Your task to perform on an android device: Go to Reddit.com Image 0: 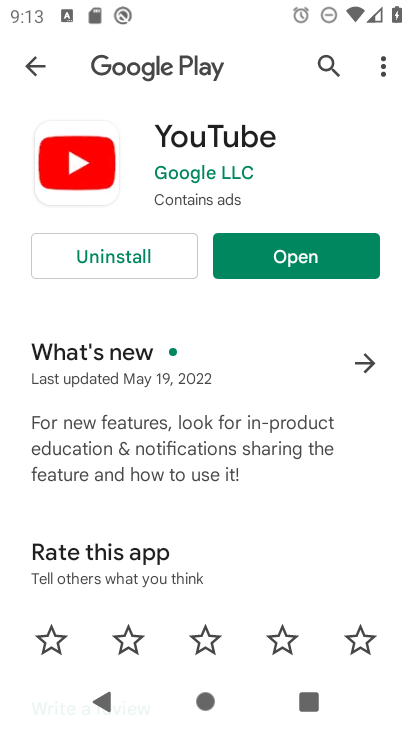
Step 0: press home button
Your task to perform on an android device: Go to Reddit.com Image 1: 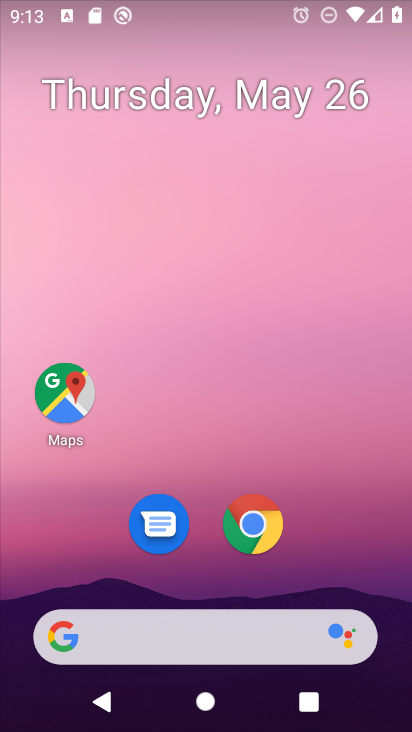
Step 1: click (247, 646)
Your task to perform on an android device: Go to Reddit.com Image 2: 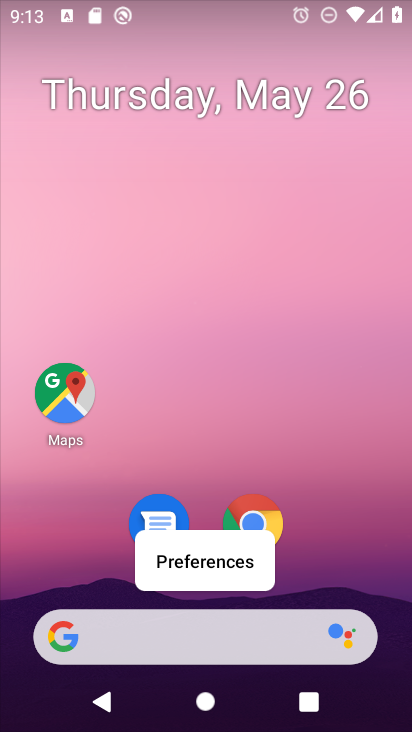
Step 2: click (219, 651)
Your task to perform on an android device: Go to Reddit.com Image 3: 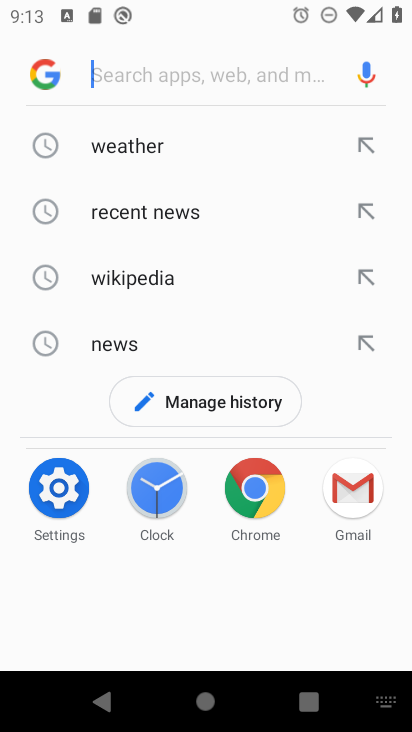
Step 3: type "reddit.com"
Your task to perform on an android device: Go to Reddit.com Image 4: 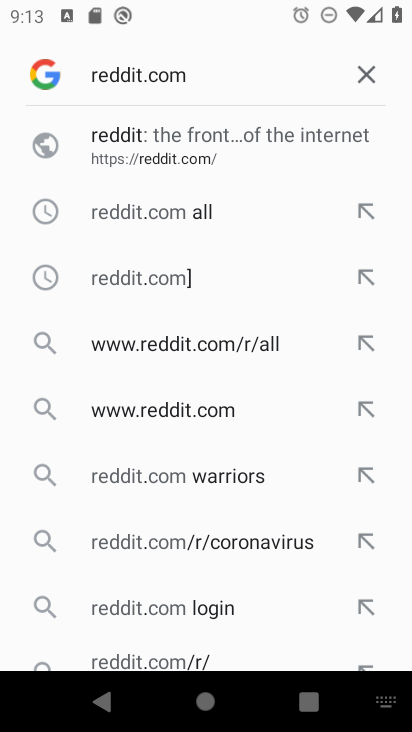
Step 4: click (144, 154)
Your task to perform on an android device: Go to Reddit.com Image 5: 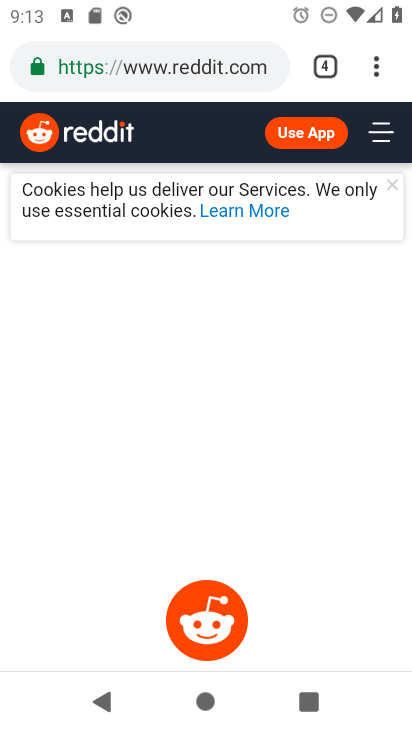
Step 5: task complete